Your task to perform on an android device: Open the stopwatch Image 0: 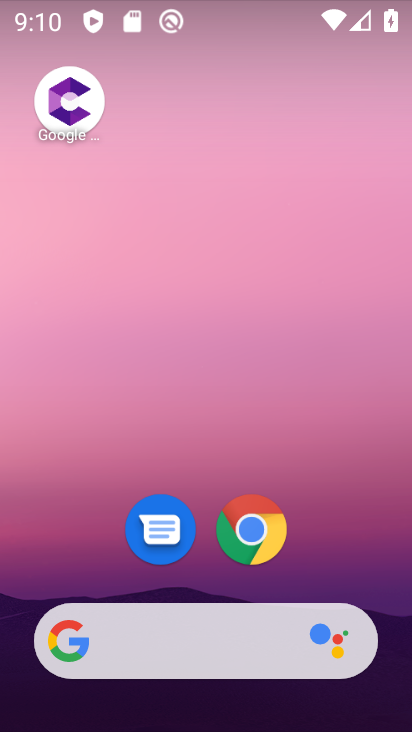
Step 0: drag from (340, 537) to (248, 142)
Your task to perform on an android device: Open the stopwatch Image 1: 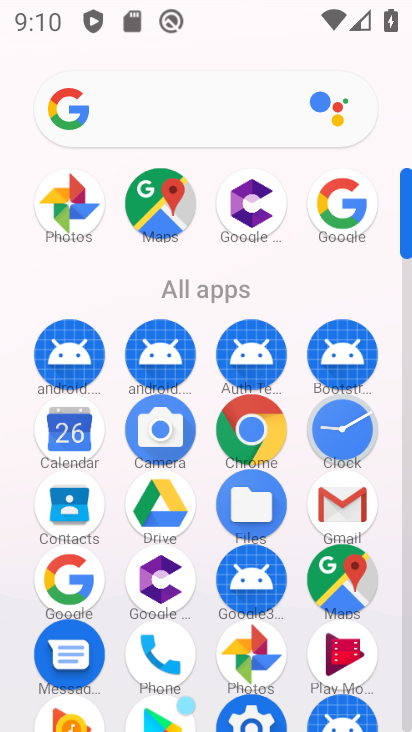
Step 1: drag from (196, 507) to (246, 270)
Your task to perform on an android device: Open the stopwatch Image 2: 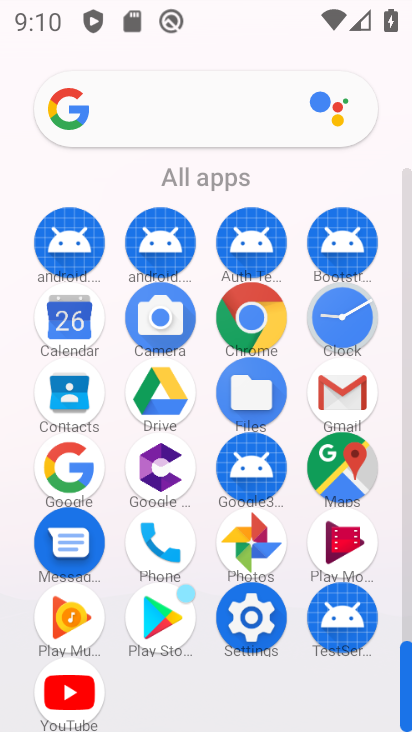
Step 2: click (341, 318)
Your task to perform on an android device: Open the stopwatch Image 3: 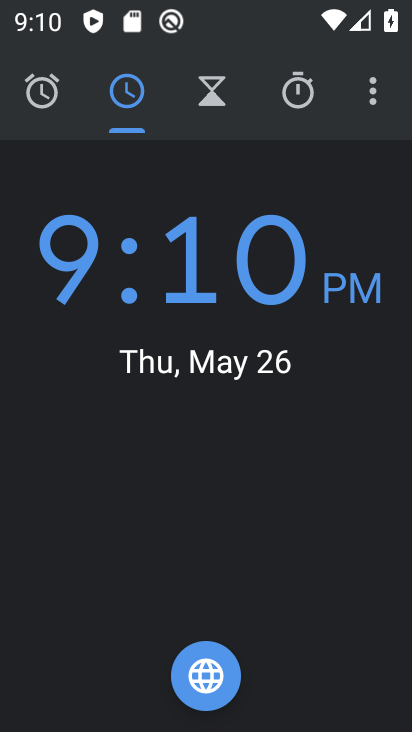
Step 3: click (298, 95)
Your task to perform on an android device: Open the stopwatch Image 4: 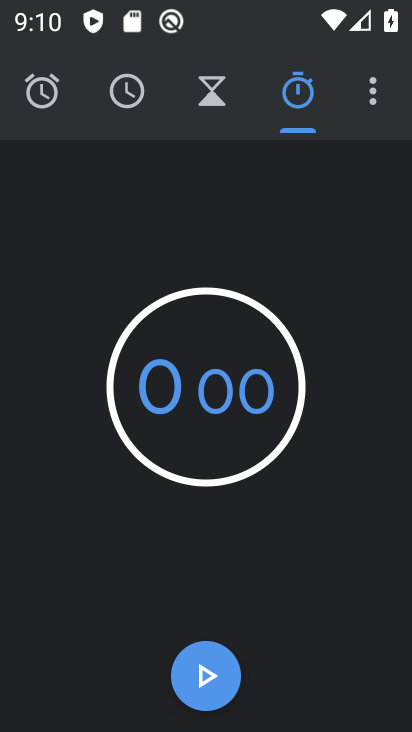
Step 4: task complete